Your task to perform on an android device: Open battery settings Image 0: 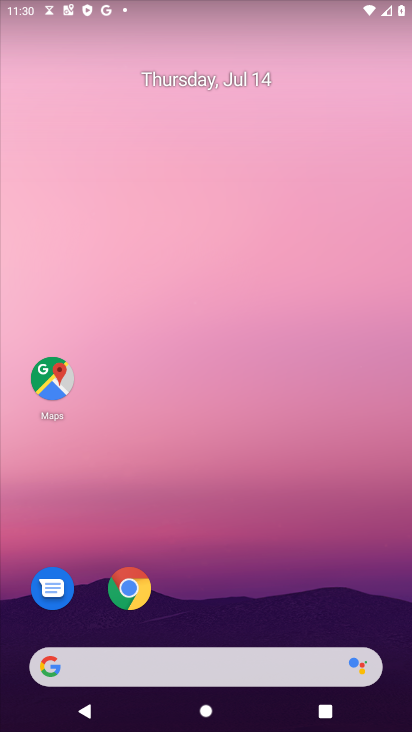
Step 0: press home button
Your task to perform on an android device: Open battery settings Image 1: 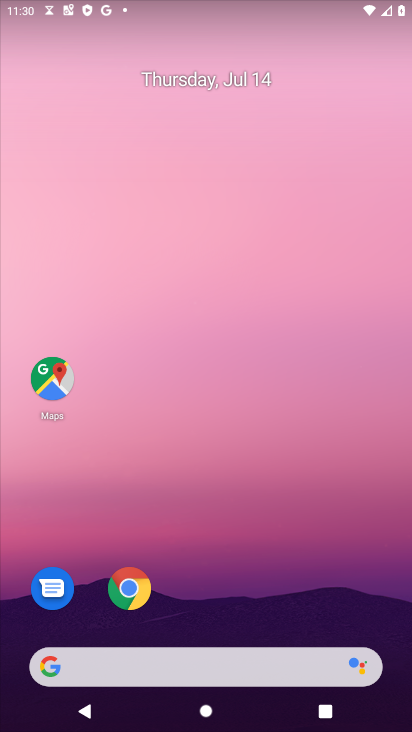
Step 1: drag from (154, 669) to (335, 69)
Your task to perform on an android device: Open battery settings Image 2: 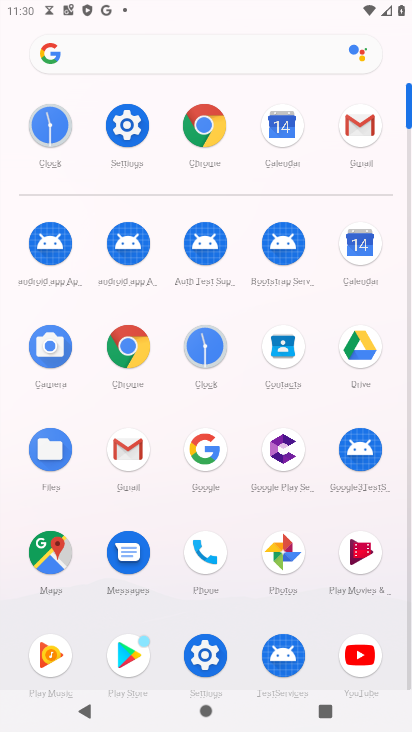
Step 2: click (127, 130)
Your task to perform on an android device: Open battery settings Image 3: 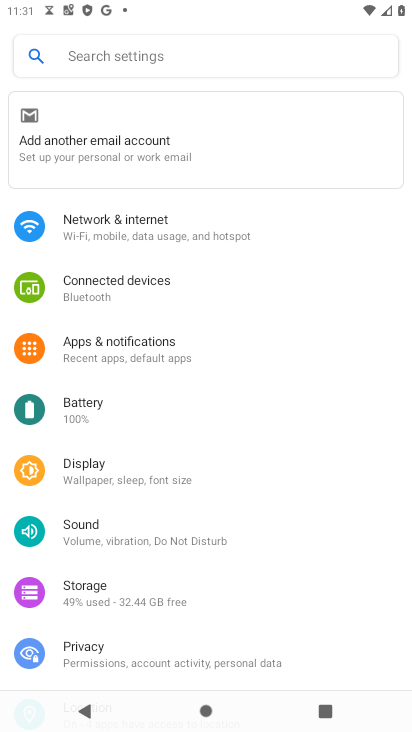
Step 3: click (81, 411)
Your task to perform on an android device: Open battery settings Image 4: 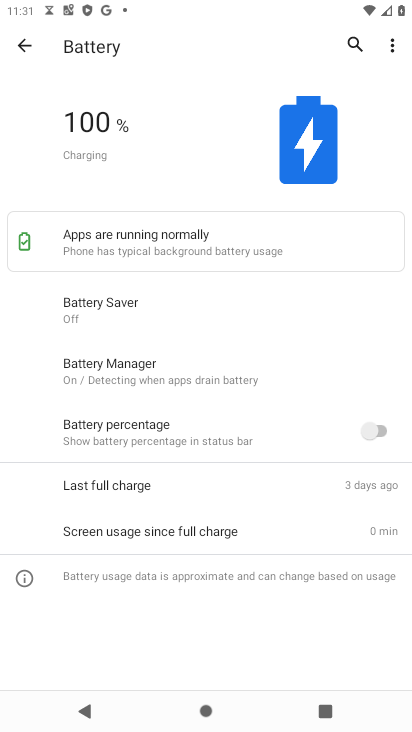
Step 4: task complete